Your task to perform on an android device: add a label to a message in the gmail app Image 0: 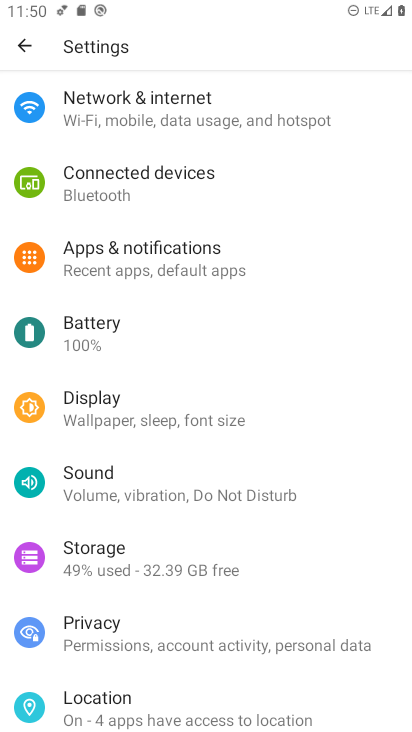
Step 0: press home button
Your task to perform on an android device: add a label to a message in the gmail app Image 1: 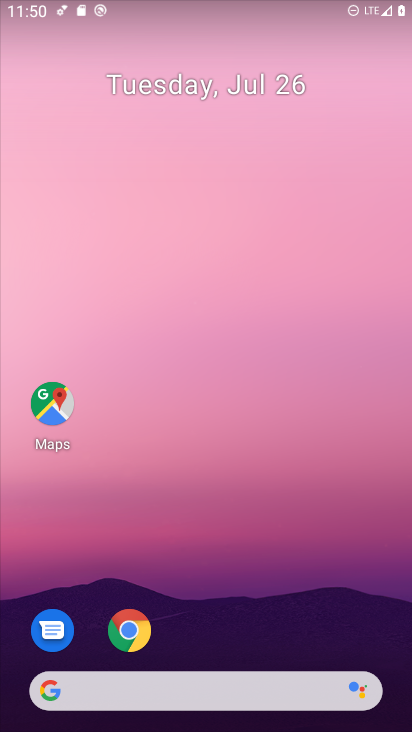
Step 1: drag from (379, 628) to (333, 100)
Your task to perform on an android device: add a label to a message in the gmail app Image 2: 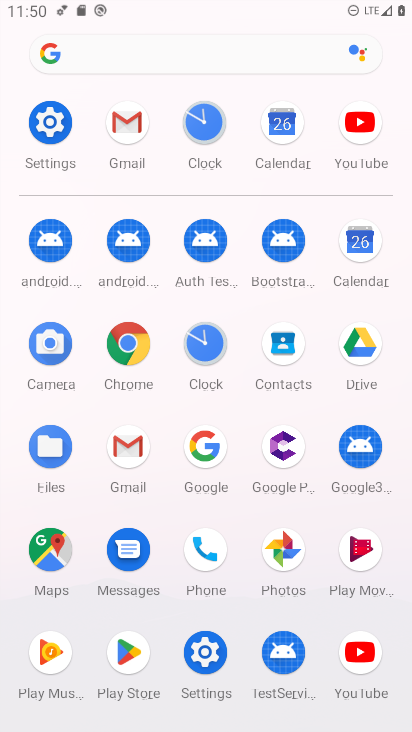
Step 2: click (129, 446)
Your task to perform on an android device: add a label to a message in the gmail app Image 3: 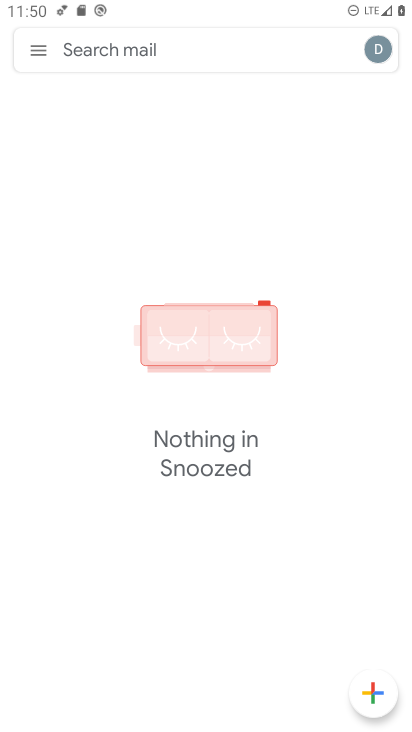
Step 3: click (34, 55)
Your task to perform on an android device: add a label to a message in the gmail app Image 4: 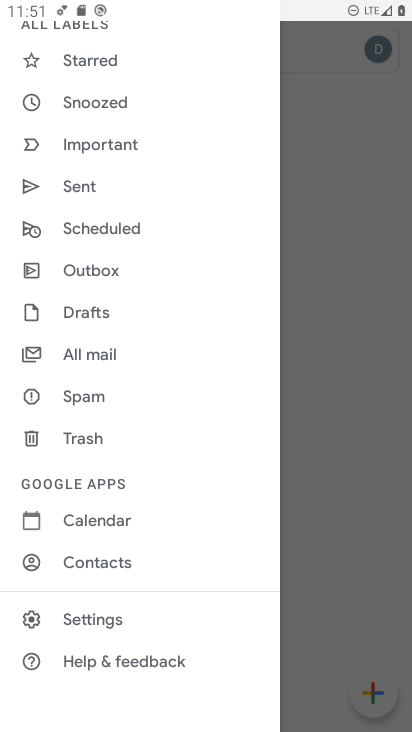
Step 4: click (88, 355)
Your task to perform on an android device: add a label to a message in the gmail app Image 5: 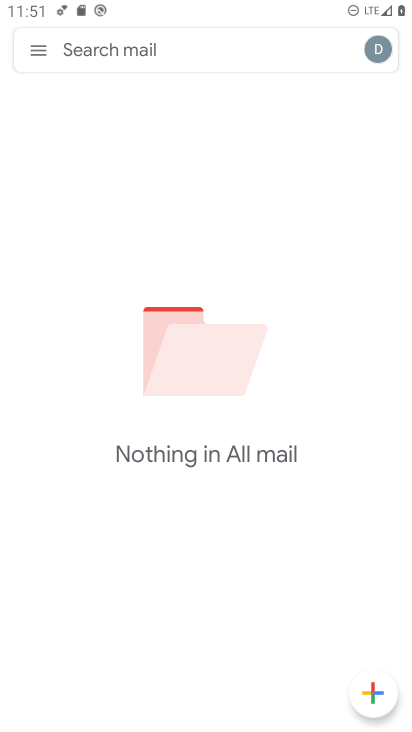
Step 5: task complete